Your task to perform on an android device: Go to calendar. Show me events next week Image 0: 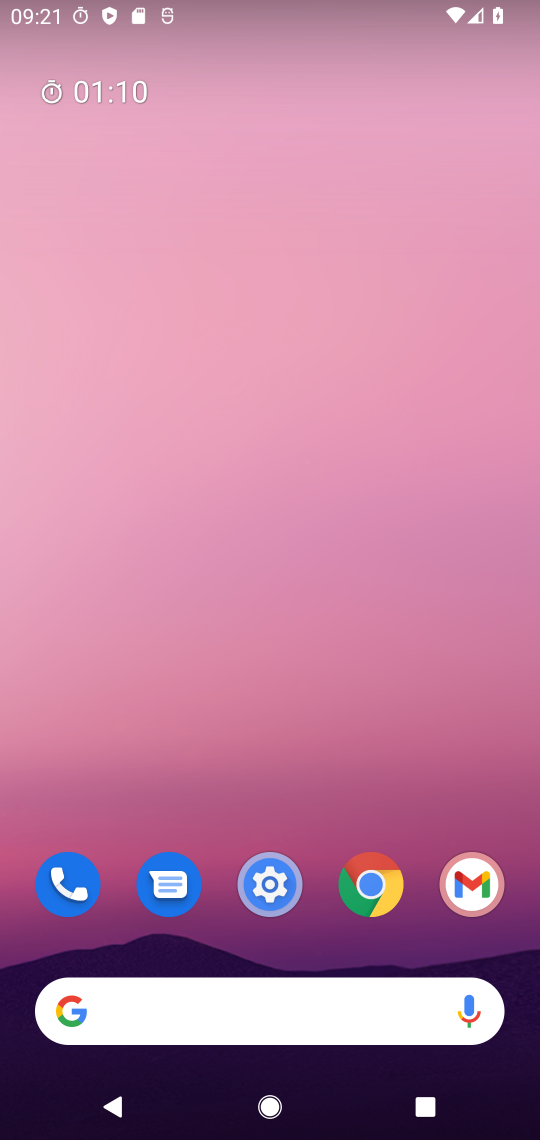
Step 0: drag from (264, 646) to (264, 261)
Your task to perform on an android device: Go to calendar. Show me events next week Image 1: 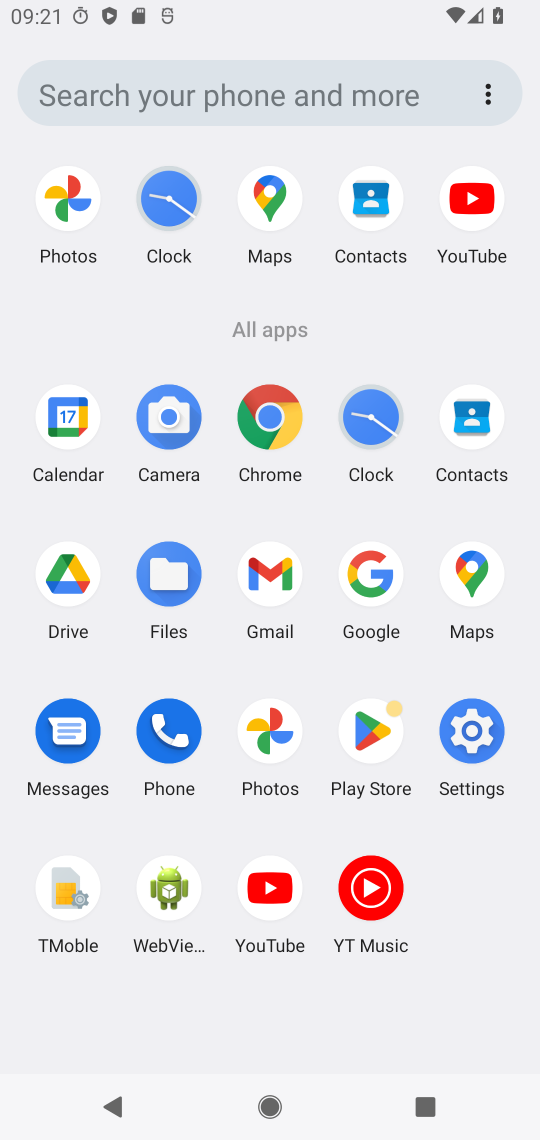
Step 1: click (80, 440)
Your task to perform on an android device: Go to calendar. Show me events next week Image 2: 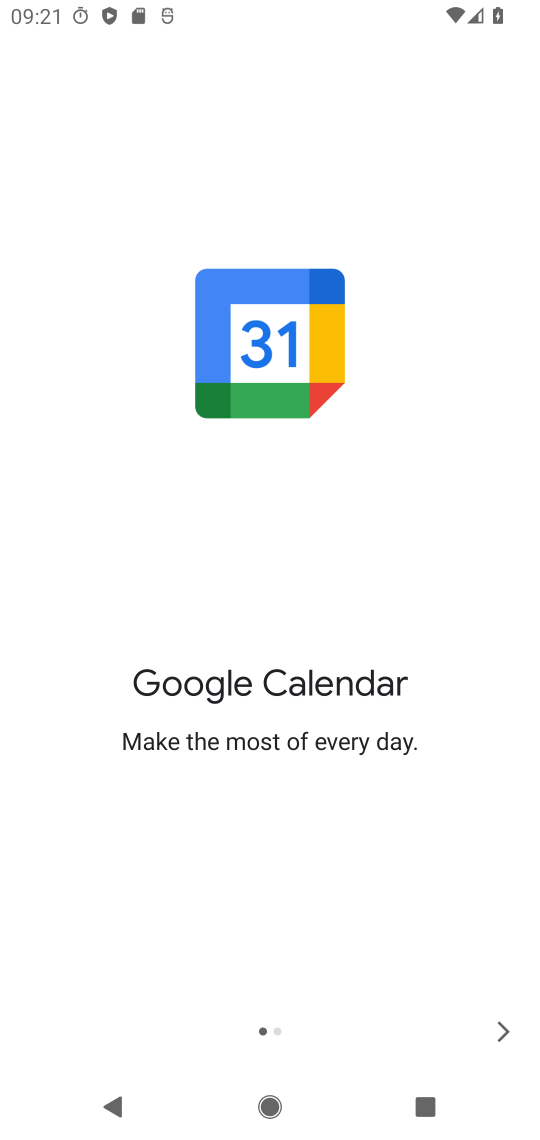
Step 2: click (485, 1032)
Your task to perform on an android device: Go to calendar. Show me events next week Image 3: 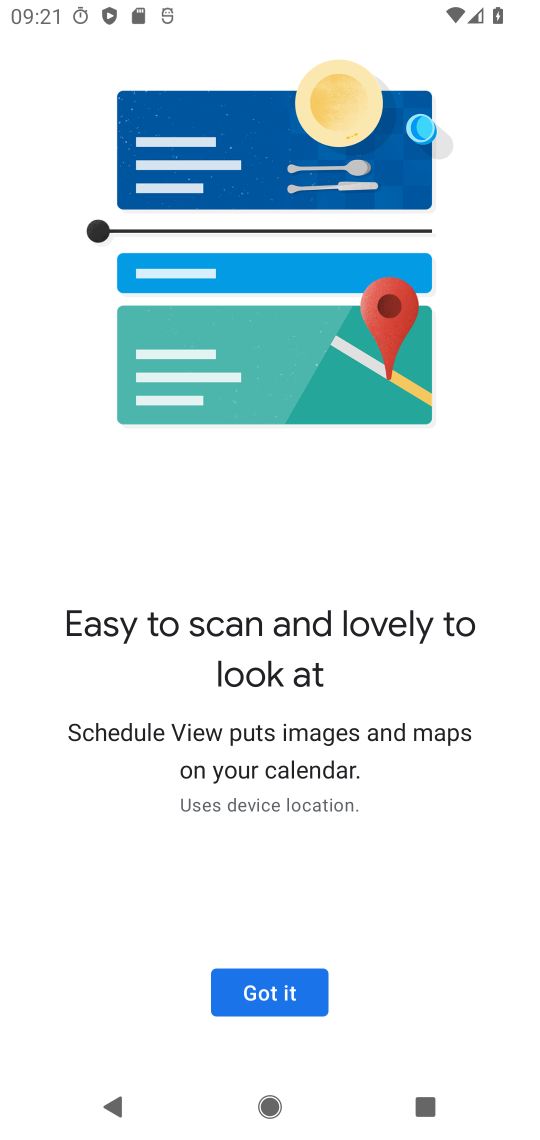
Step 3: click (485, 1032)
Your task to perform on an android device: Go to calendar. Show me events next week Image 4: 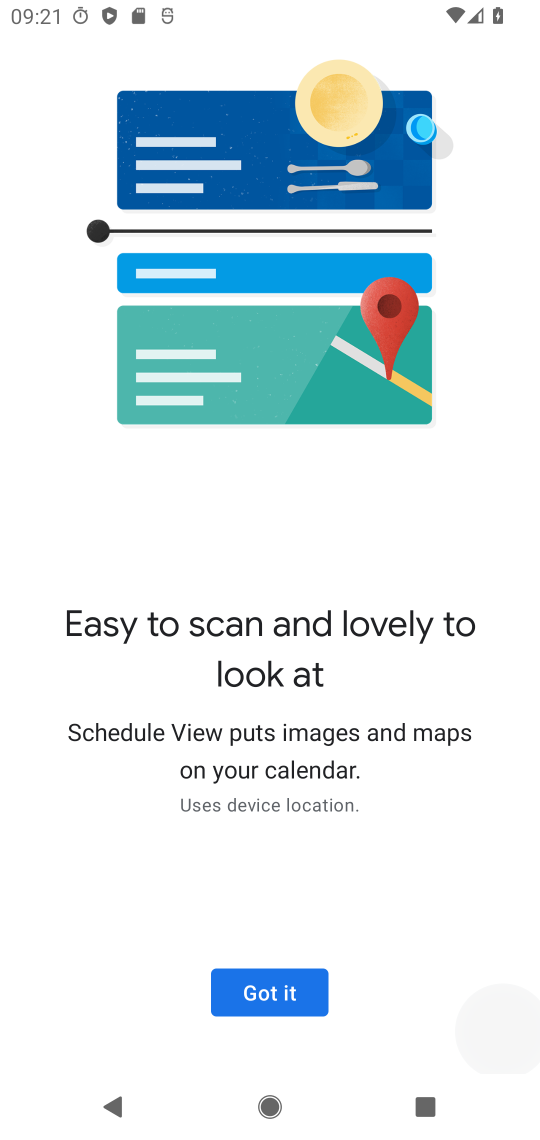
Step 4: click (299, 976)
Your task to perform on an android device: Go to calendar. Show me events next week Image 5: 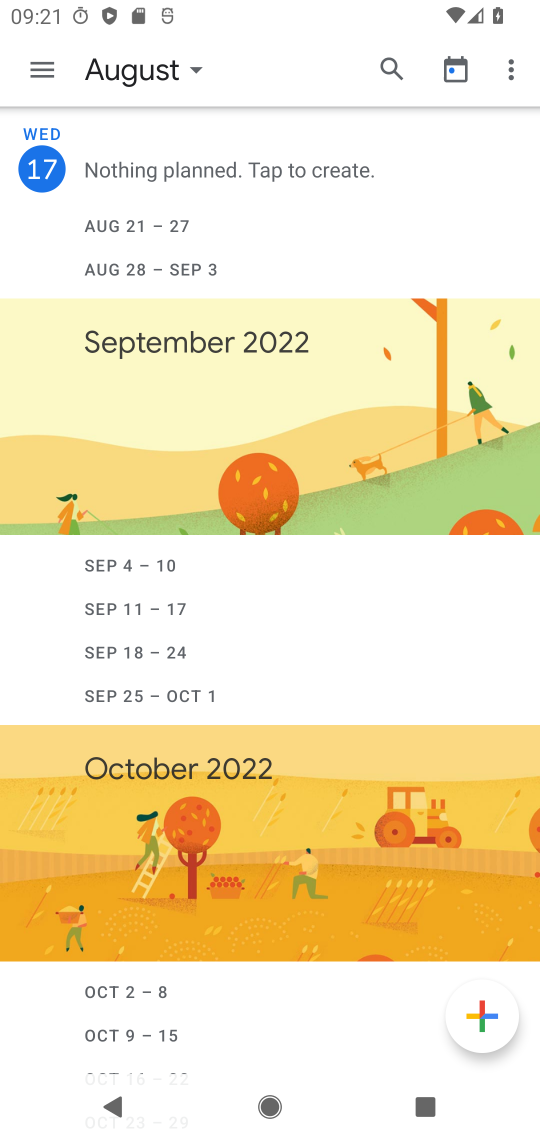
Step 5: click (184, 88)
Your task to perform on an android device: Go to calendar. Show me events next week Image 6: 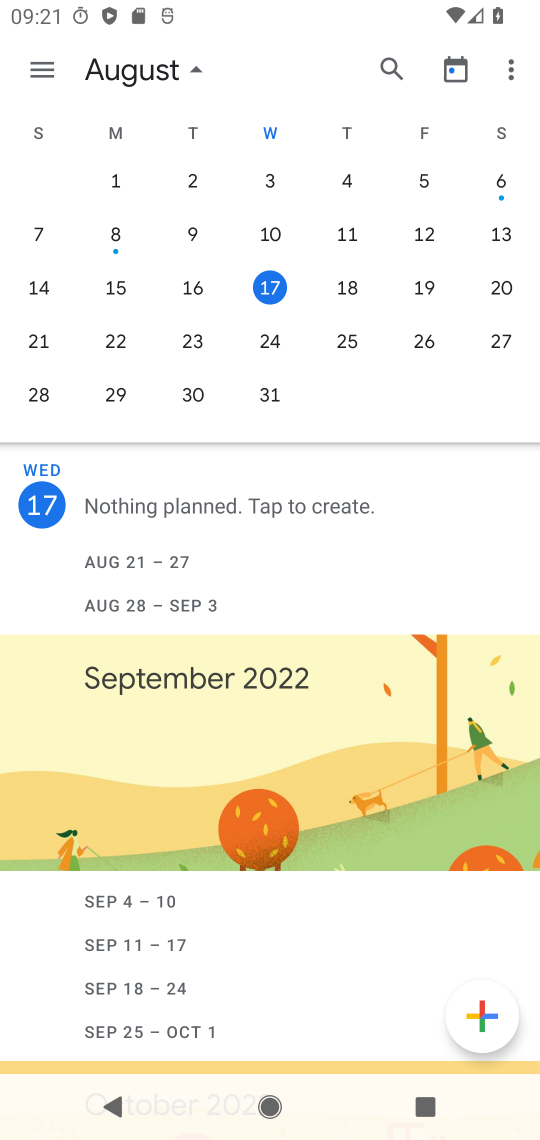
Step 6: click (505, 339)
Your task to perform on an android device: Go to calendar. Show me events next week Image 7: 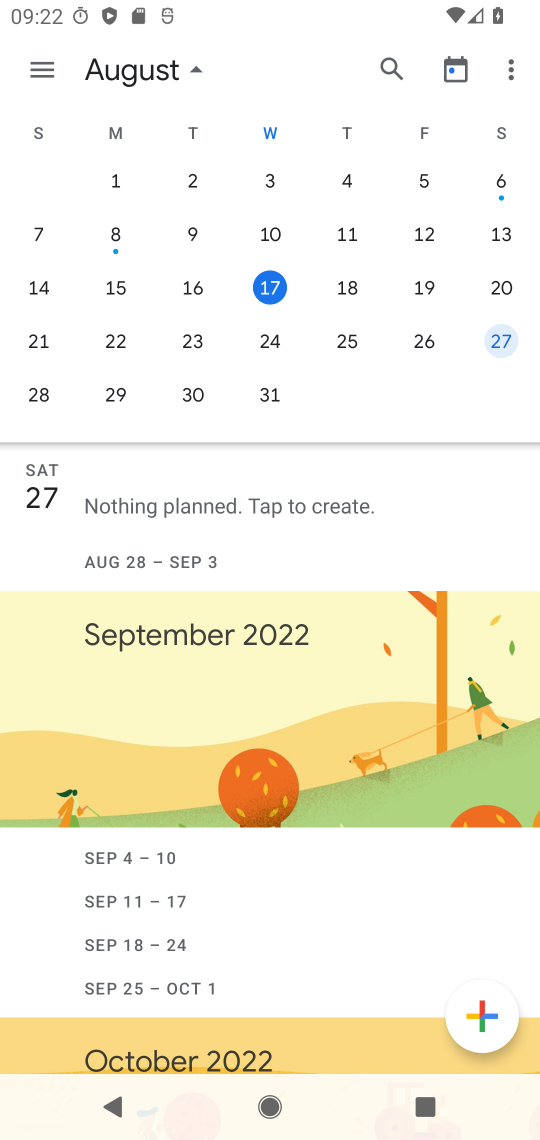
Step 7: click (500, 355)
Your task to perform on an android device: Go to calendar. Show me events next week Image 8: 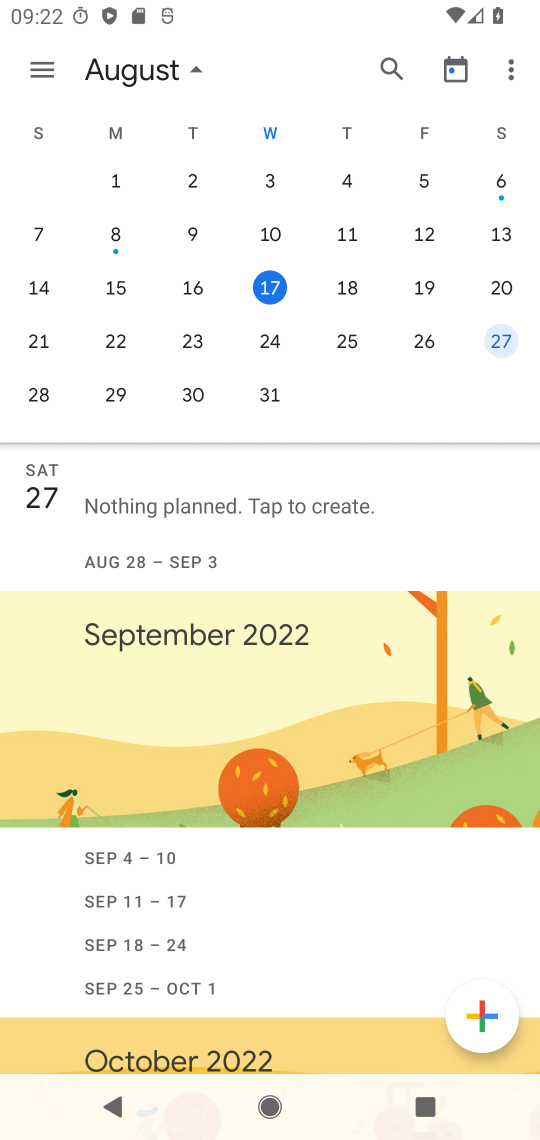
Step 8: click (485, 340)
Your task to perform on an android device: Go to calendar. Show me events next week Image 9: 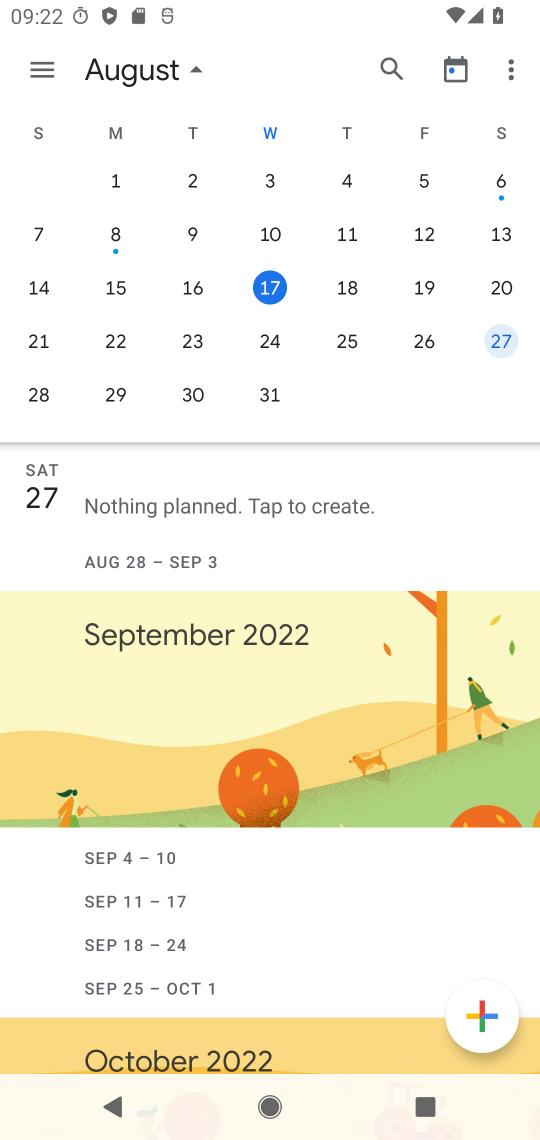
Step 9: click (485, 340)
Your task to perform on an android device: Go to calendar. Show me events next week Image 10: 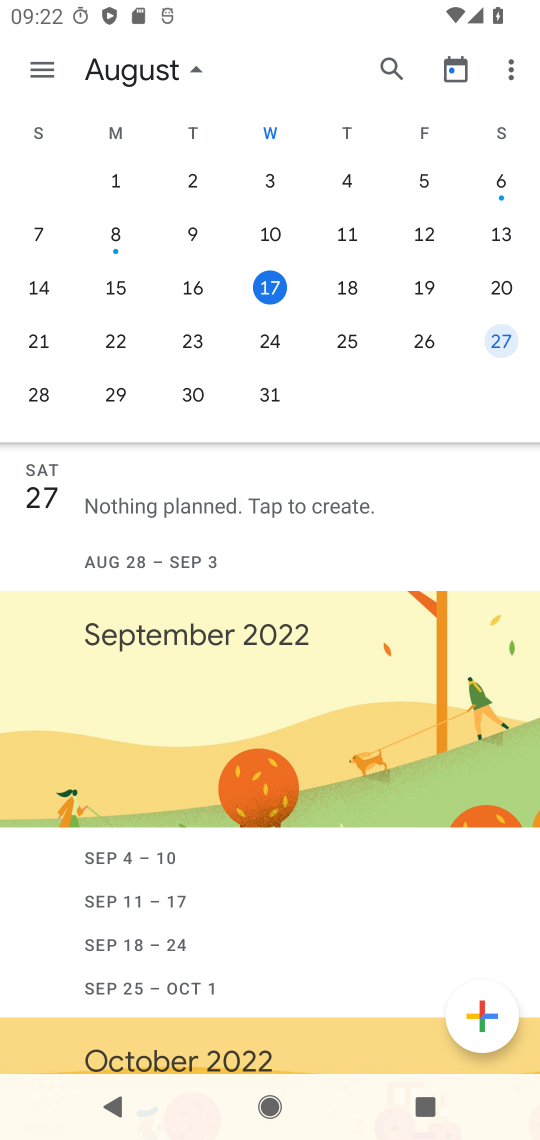
Step 10: click (485, 340)
Your task to perform on an android device: Go to calendar. Show me events next week Image 11: 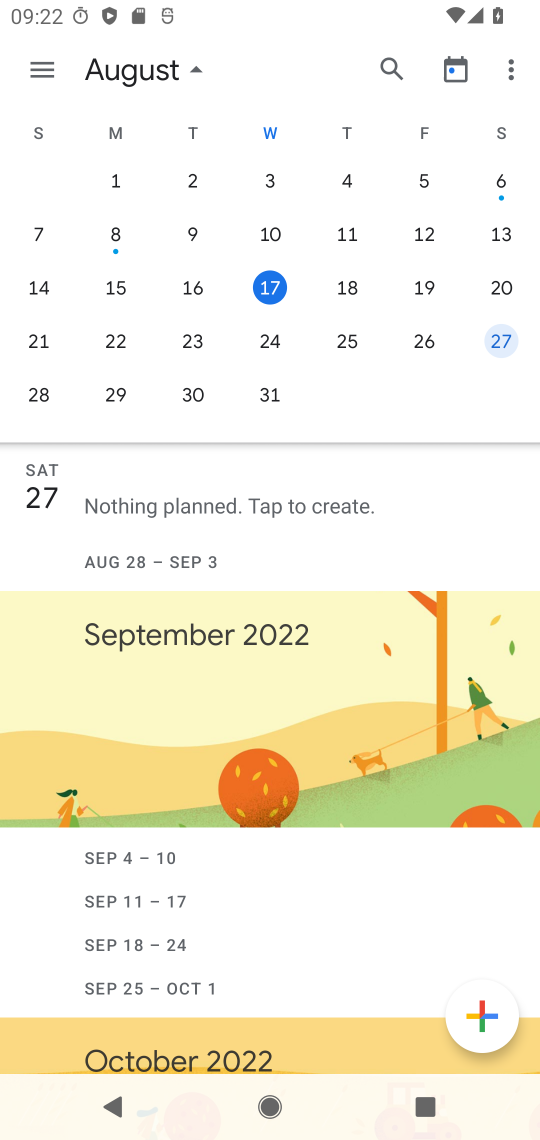
Step 11: click (485, 340)
Your task to perform on an android device: Go to calendar. Show me events next week Image 12: 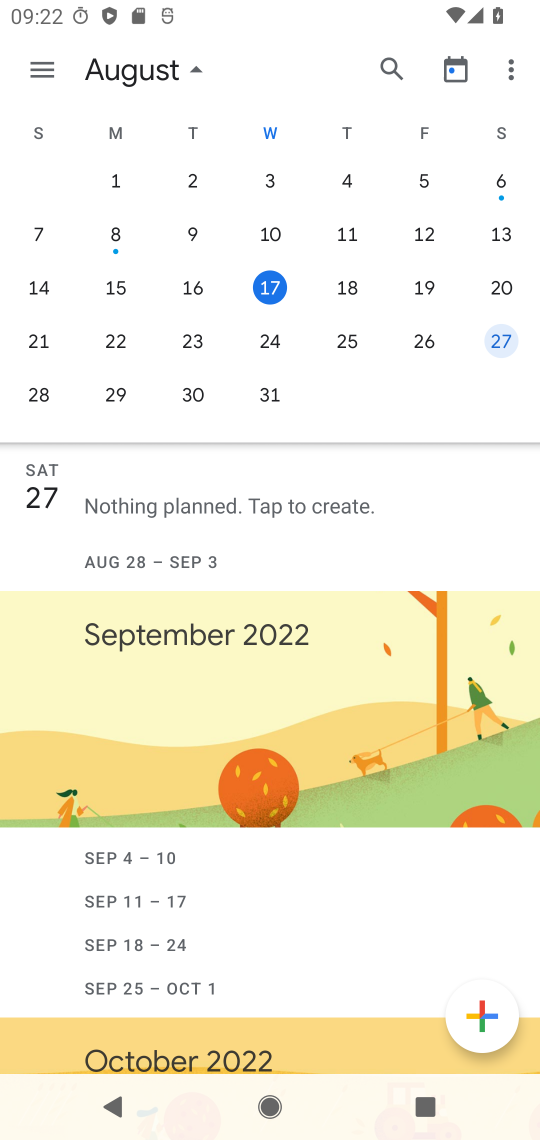
Step 12: click (497, 342)
Your task to perform on an android device: Go to calendar. Show me events next week Image 13: 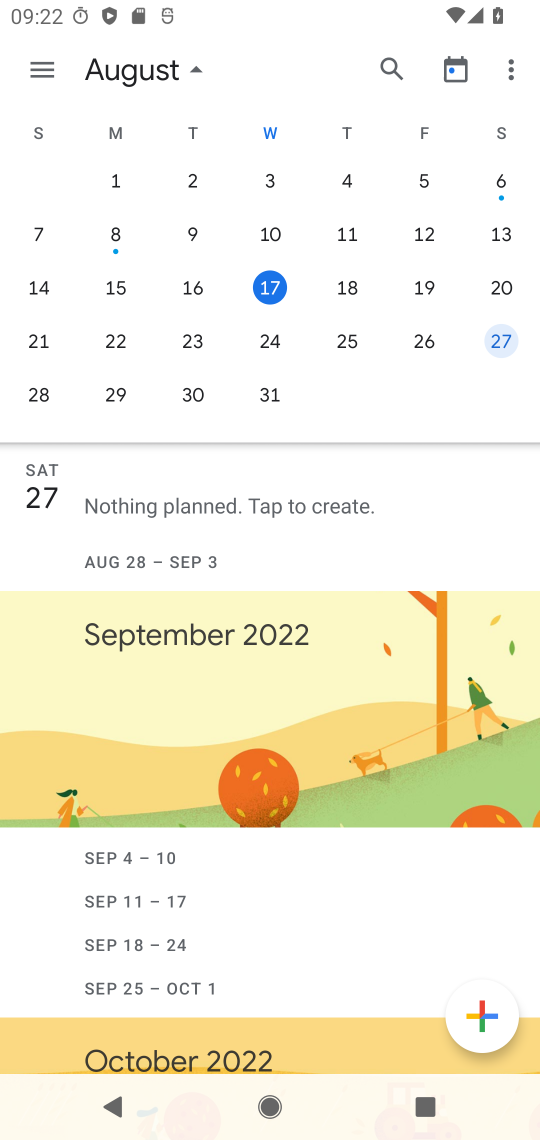
Step 13: click (437, 338)
Your task to perform on an android device: Go to calendar. Show me events next week Image 14: 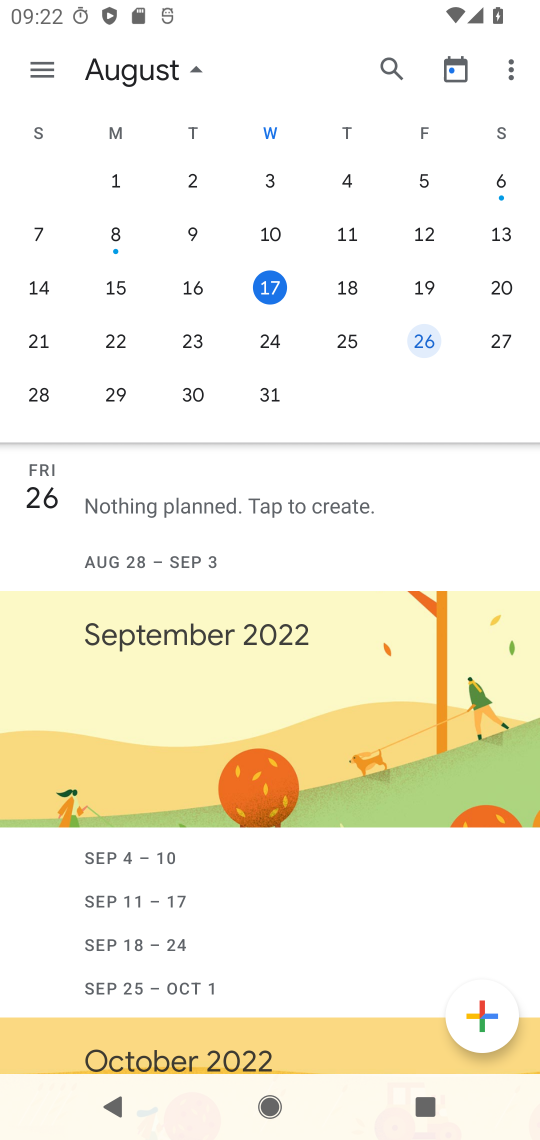
Step 14: click (500, 346)
Your task to perform on an android device: Go to calendar. Show me events next week Image 15: 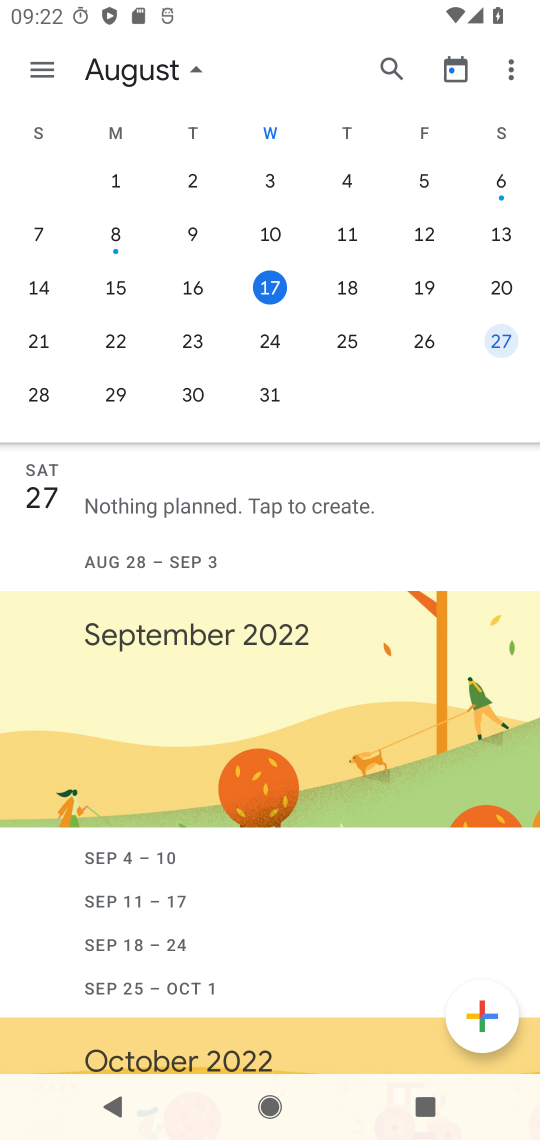
Step 15: click (509, 345)
Your task to perform on an android device: Go to calendar. Show me events next week Image 16: 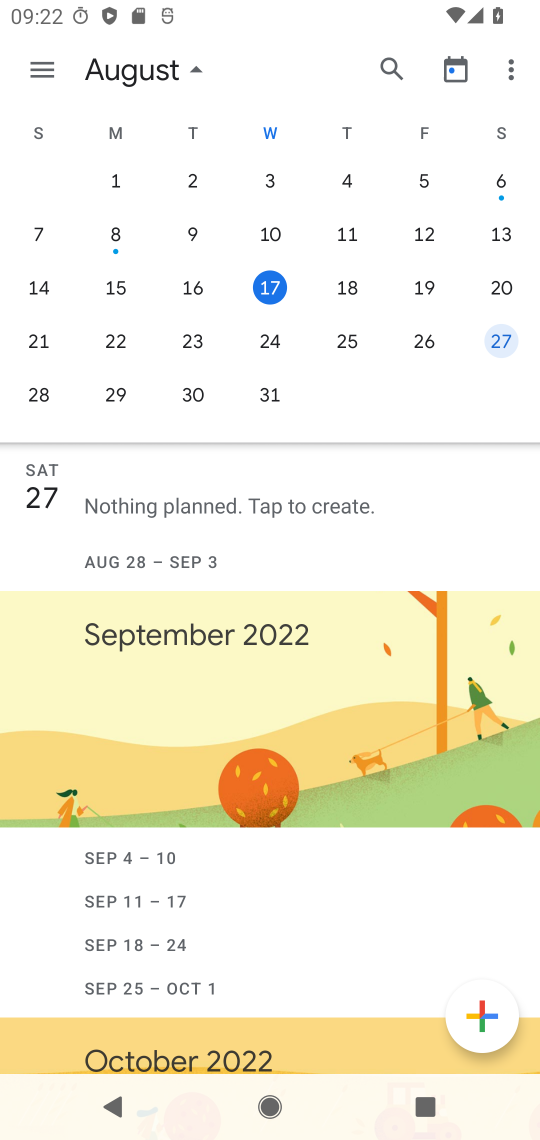
Step 16: click (57, 333)
Your task to perform on an android device: Go to calendar. Show me events next week Image 17: 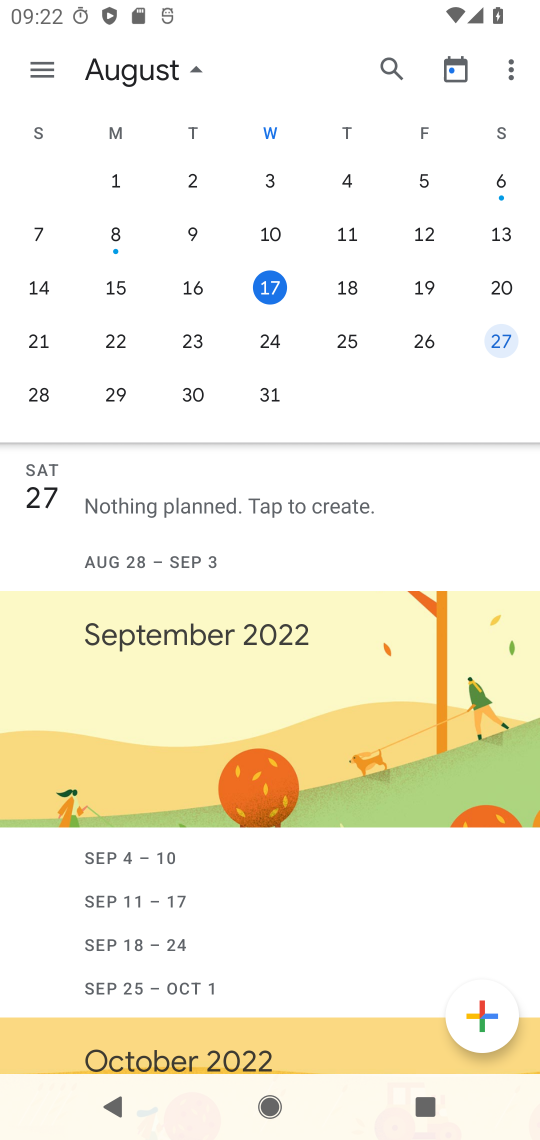
Step 17: drag from (123, 335) to (196, 335)
Your task to perform on an android device: Go to calendar. Show me events next week Image 18: 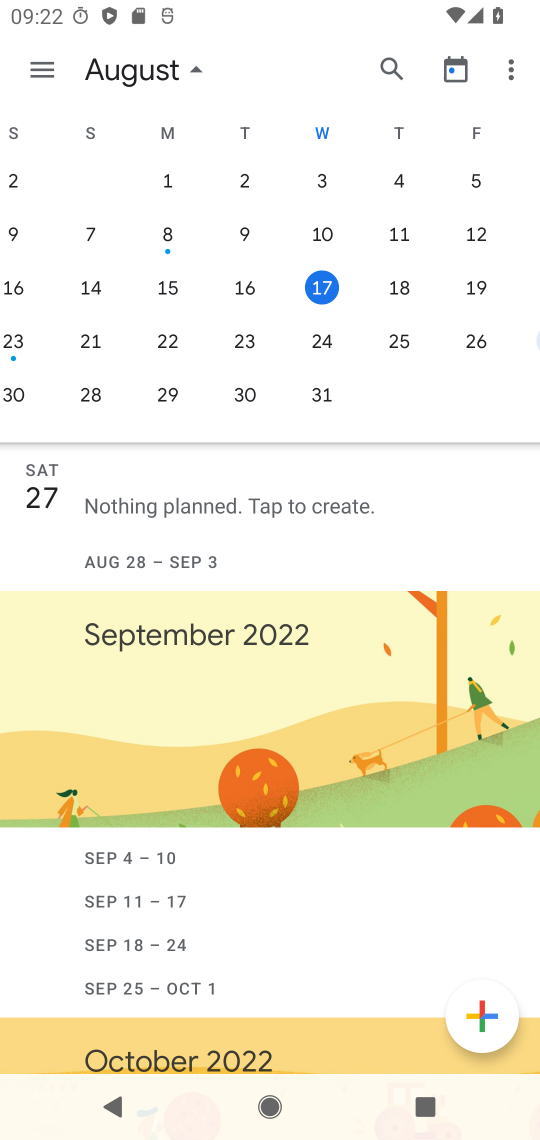
Step 18: click (220, 339)
Your task to perform on an android device: Go to calendar. Show me events next week Image 19: 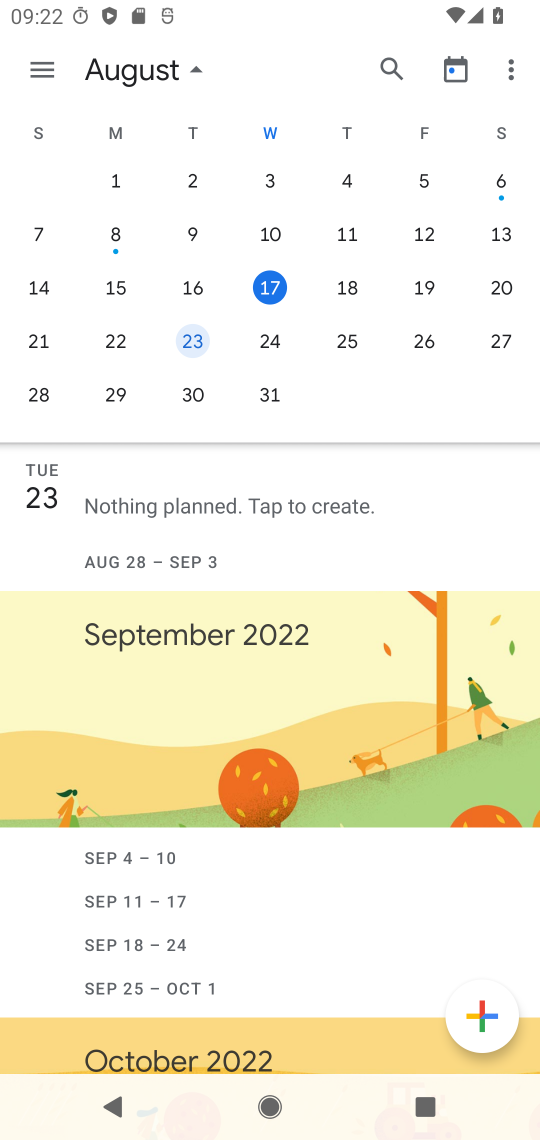
Step 19: task complete